Your task to perform on an android device: check data usage Image 0: 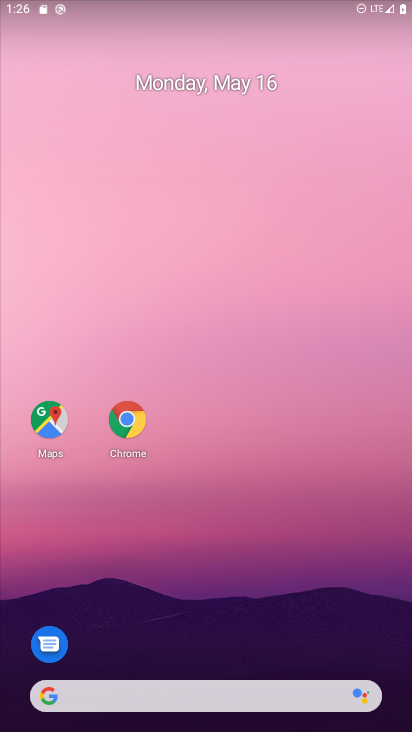
Step 0: drag from (175, 637) to (196, 578)
Your task to perform on an android device: check data usage Image 1: 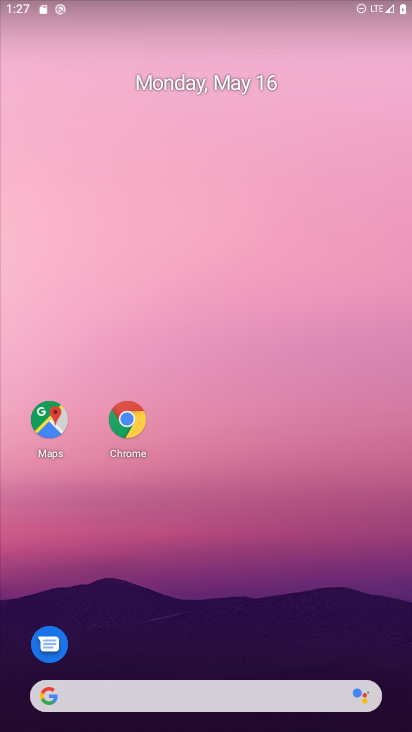
Step 1: drag from (174, 677) to (280, 404)
Your task to perform on an android device: check data usage Image 2: 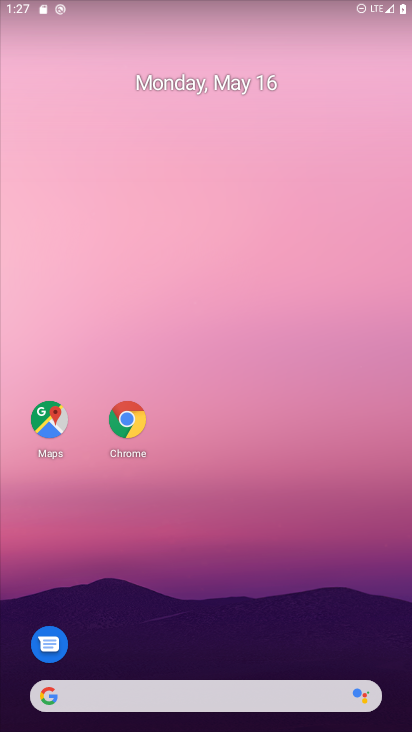
Step 2: drag from (213, 628) to (162, 8)
Your task to perform on an android device: check data usage Image 3: 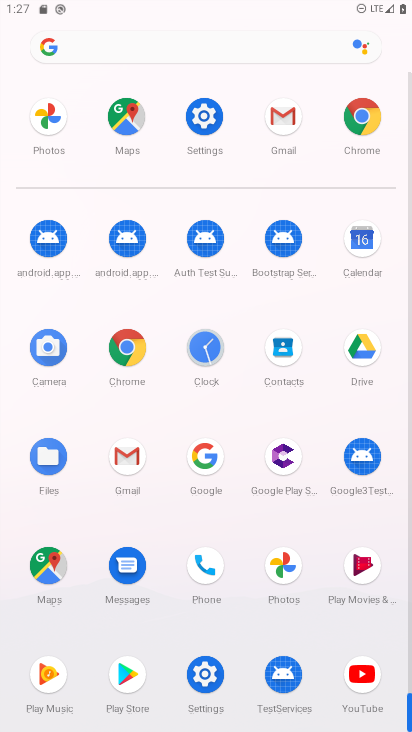
Step 3: click (195, 104)
Your task to perform on an android device: check data usage Image 4: 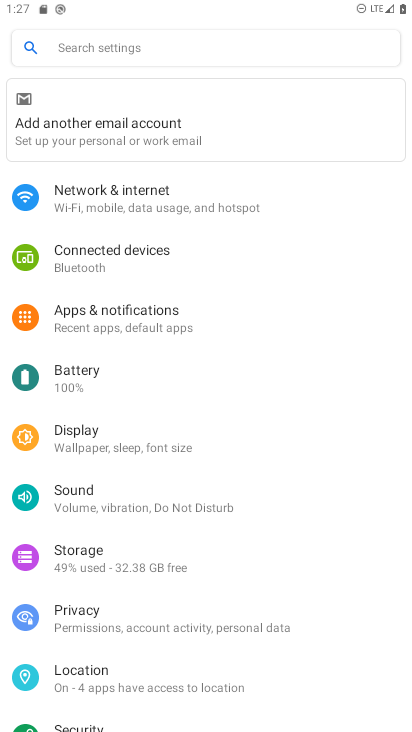
Step 4: click (126, 189)
Your task to perform on an android device: check data usage Image 5: 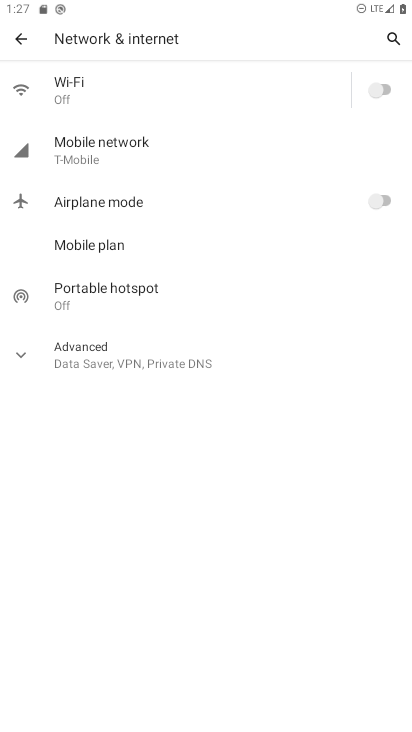
Step 5: click (116, 142)
Your task to perform on an android device: check data usage Image 6: 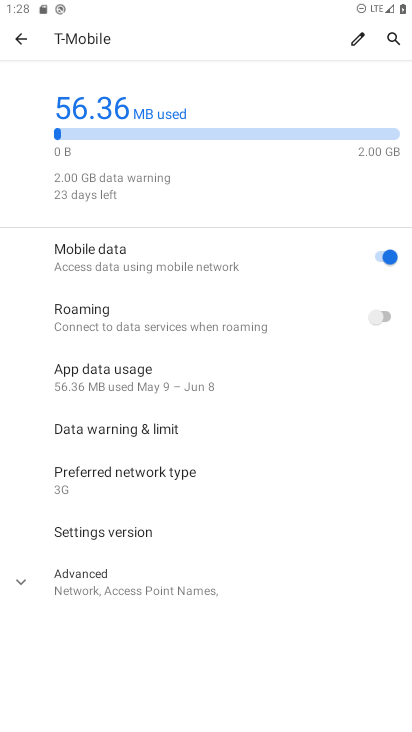
Step 6: task complete